Your task to perform on an android device: What's on my calendar today? Image 0: 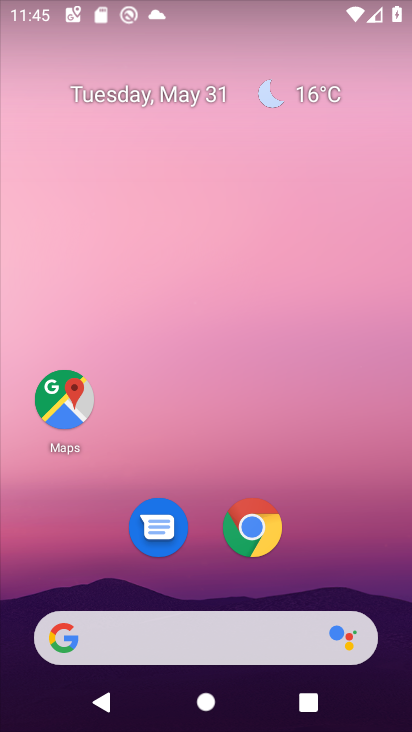
Step 0: drag from (319, 576) to (300, 2)
Your task to perform on an android device: What's on my calendar today? Image 1: 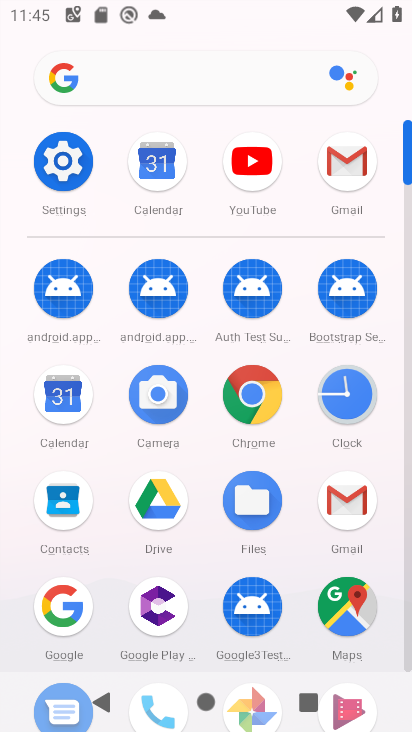
Step 1: click (152, 168)
Your task to perform on an android device: What's on my calendar today? Image 2: 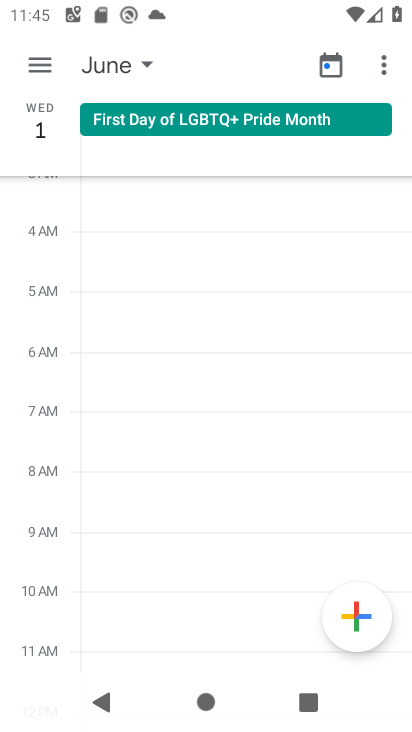
Step 2: click (331, 68)
Your task to perform on an android device: What's on my calendar today? Image 3: 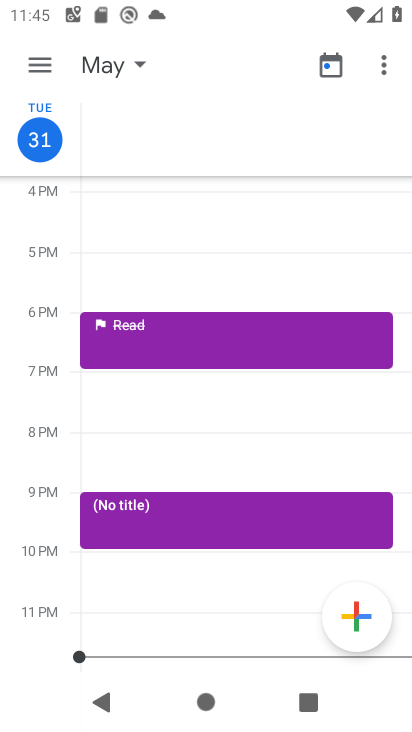
Step 3: task complete